Your task to perform on an android device: Open settings on Google Maps Image 0: 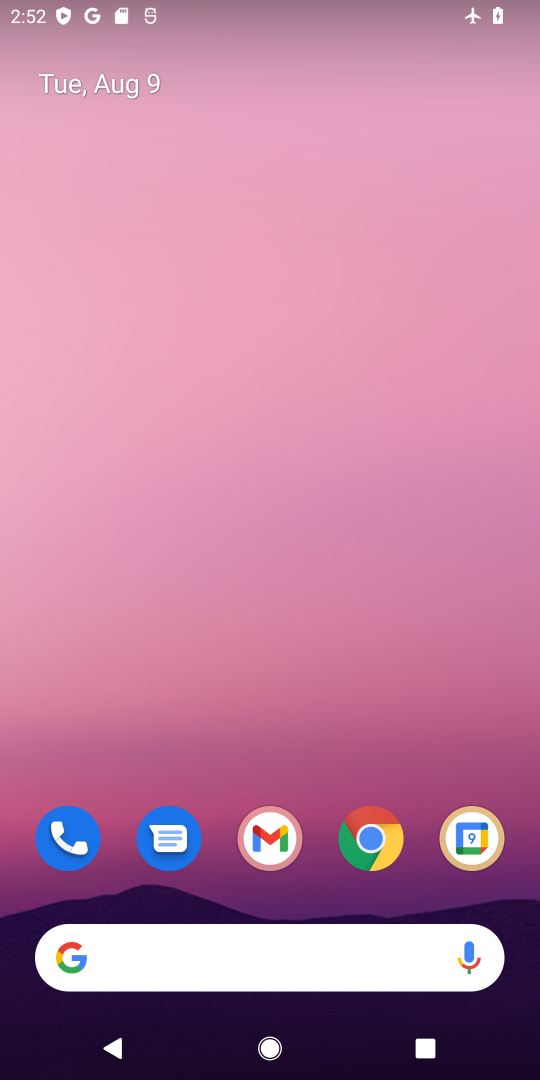
Step 0: drag from (320, 893) to (287, 315)
Your task to perform on an android device: Open settings on Google Maps Image 1: 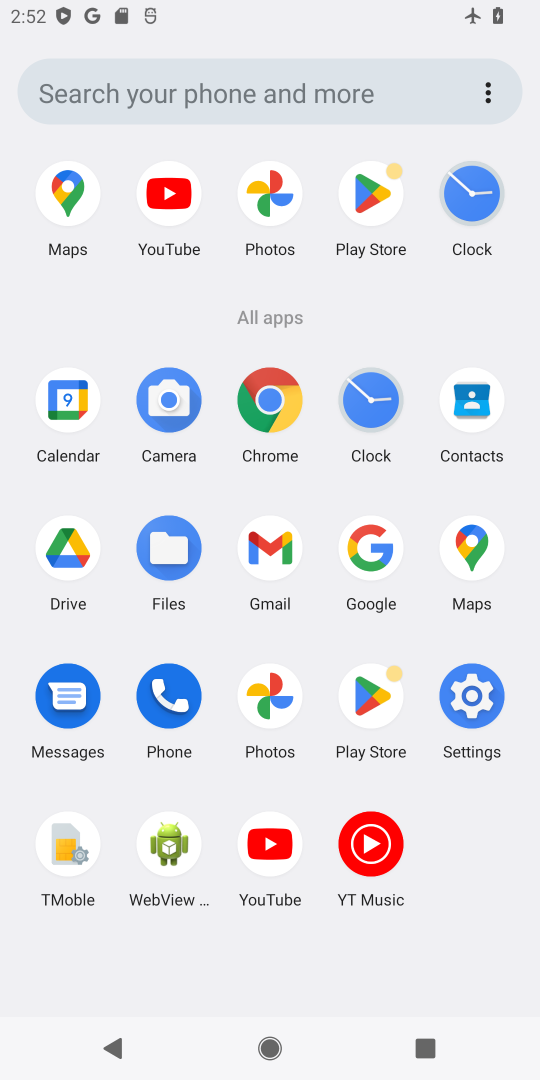
Step 1: click (484, 538)
Your task to perform on an android device: Open settings on Google Maps Image 2: 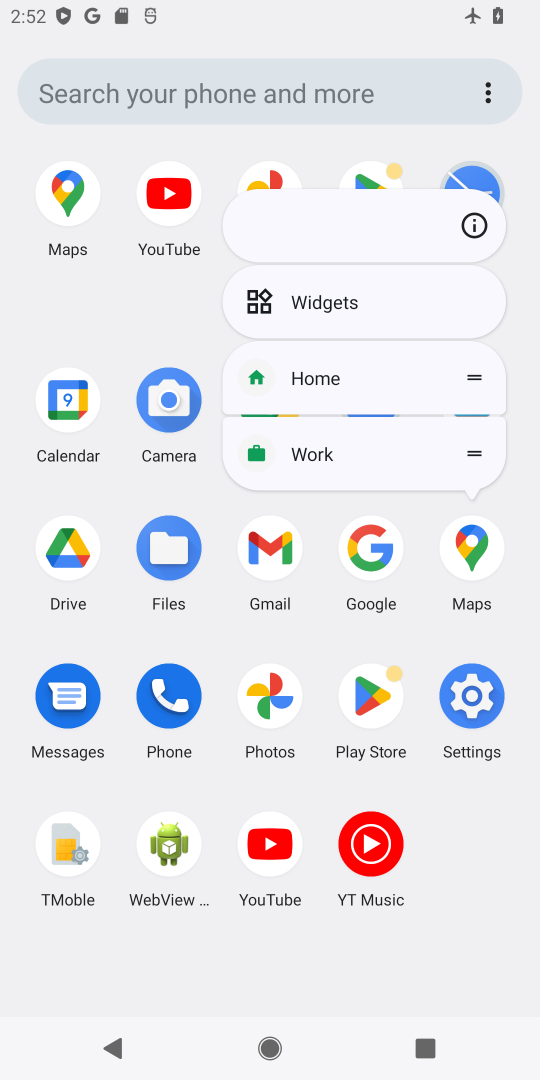
Step 2: click (481, 542)
Your task to perform on an android device: Open settings on Google Maps Image 3: 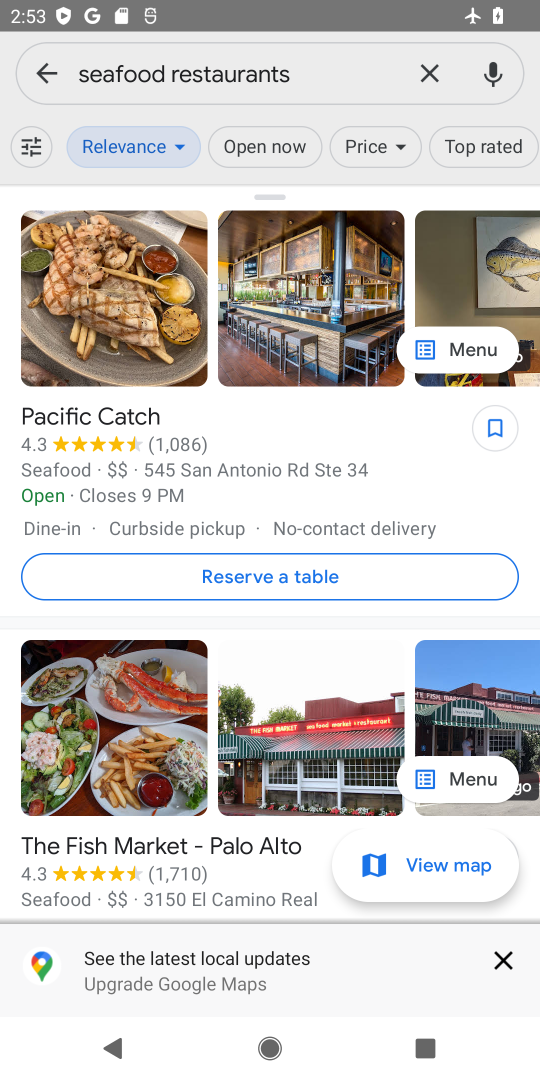
Step 3: click (32, 76)
Your task to perform on an android device: Open settings on Google Maps Image 4: 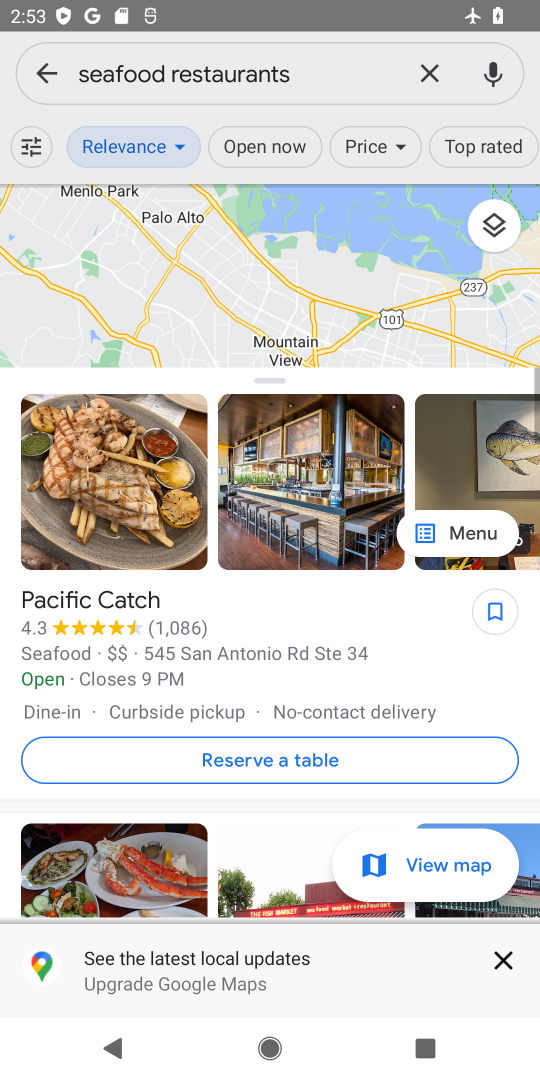
Step 4: click (32, 76)
Your task to perform on an android device: Open settings on Google Maps Image 5: 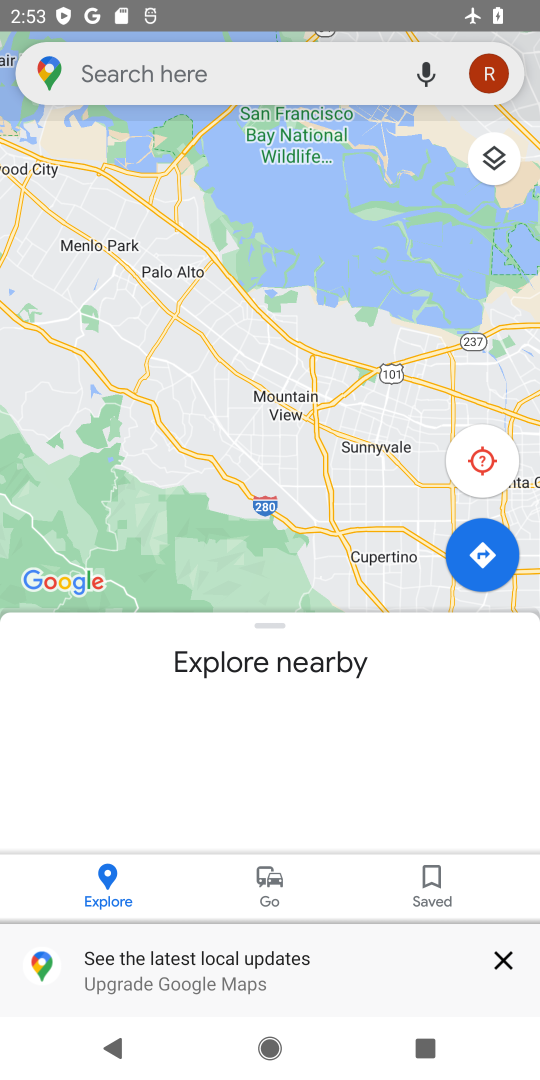
Step 5: click (492, 63)
Your task to perform on an android device: Open settings on Google Maps Image 6: 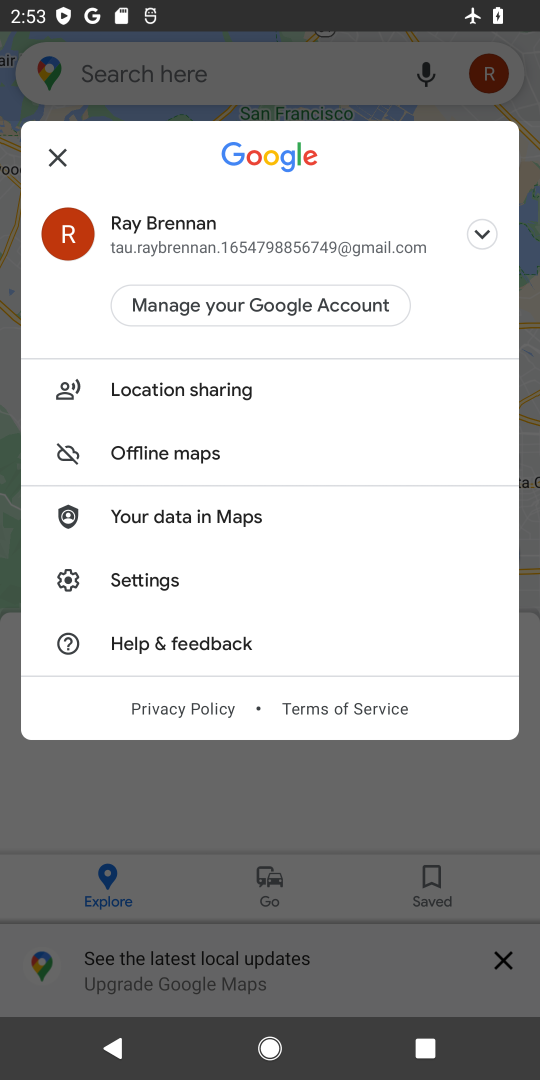
Step 6: click (146, 589)
Your task to perform on an android device: Open settings on Google Maps Image 7: 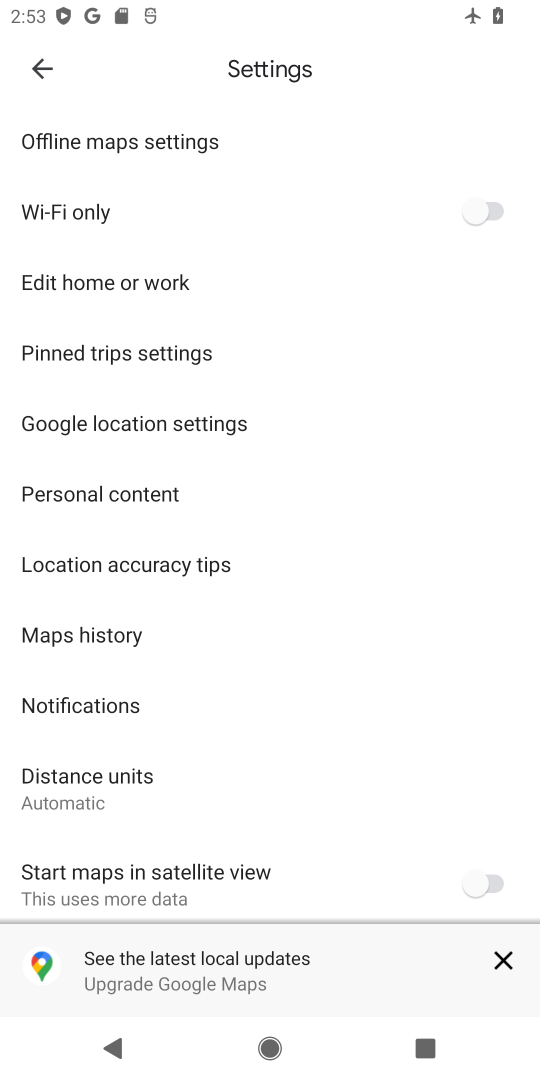
Step 7: task complete